Your task to perform on an android device: check data usage Image 0: 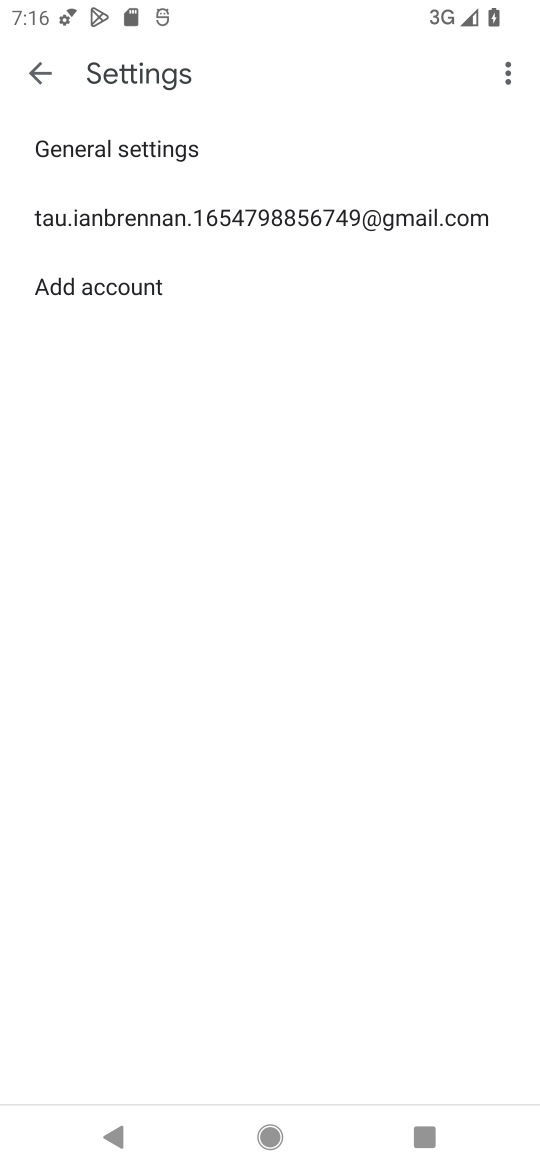
Step 0: press home button
Your task to perform on an android device: check data usage Image 1: 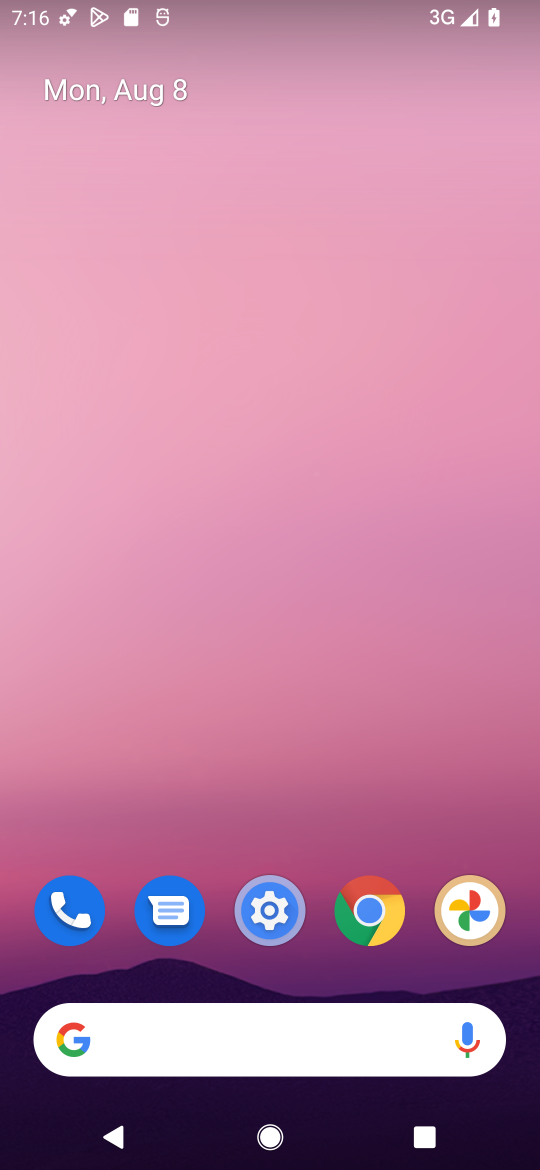
Step 1: click (277, 910)
Your task to perform on an android device: check data usage Image 2: 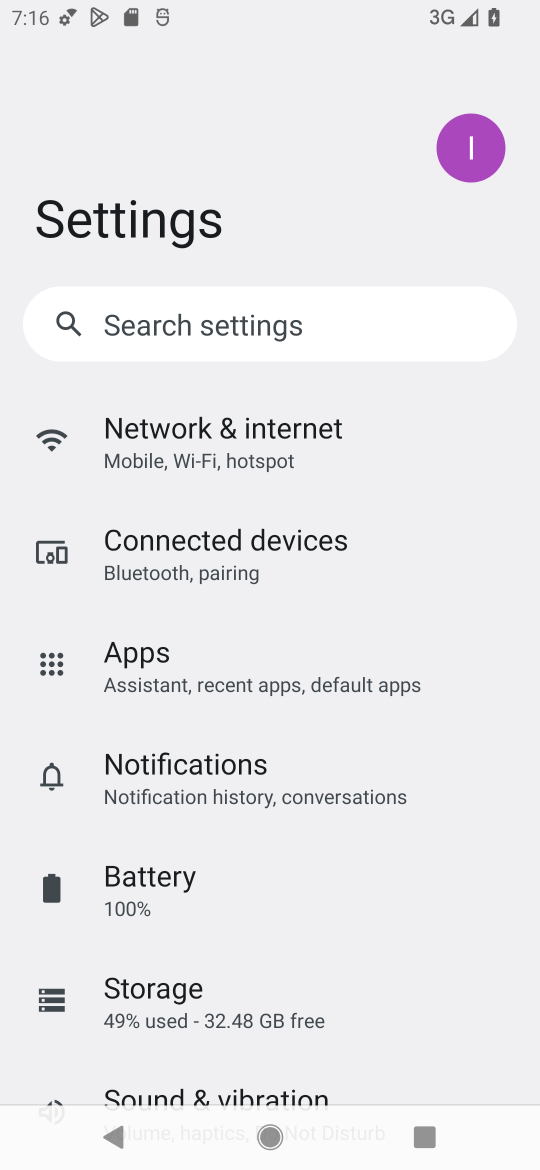
Step 2: click (167, 433)
Your task to perform on an android device: check data usage Image 3: 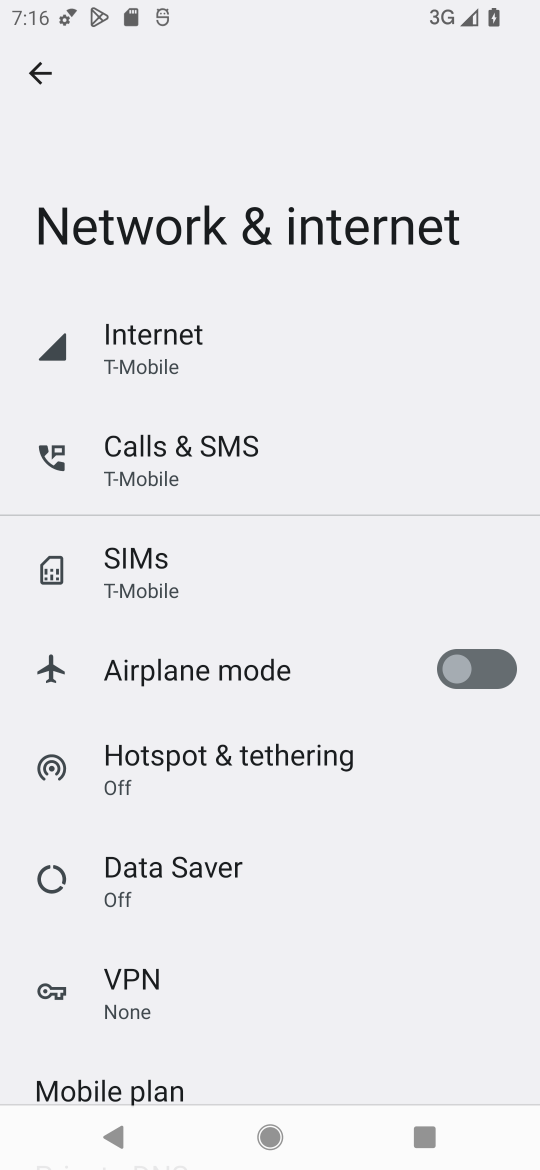
Step 3: click (143, 338)
Your task to perform on an android device: check data usage Image 4: 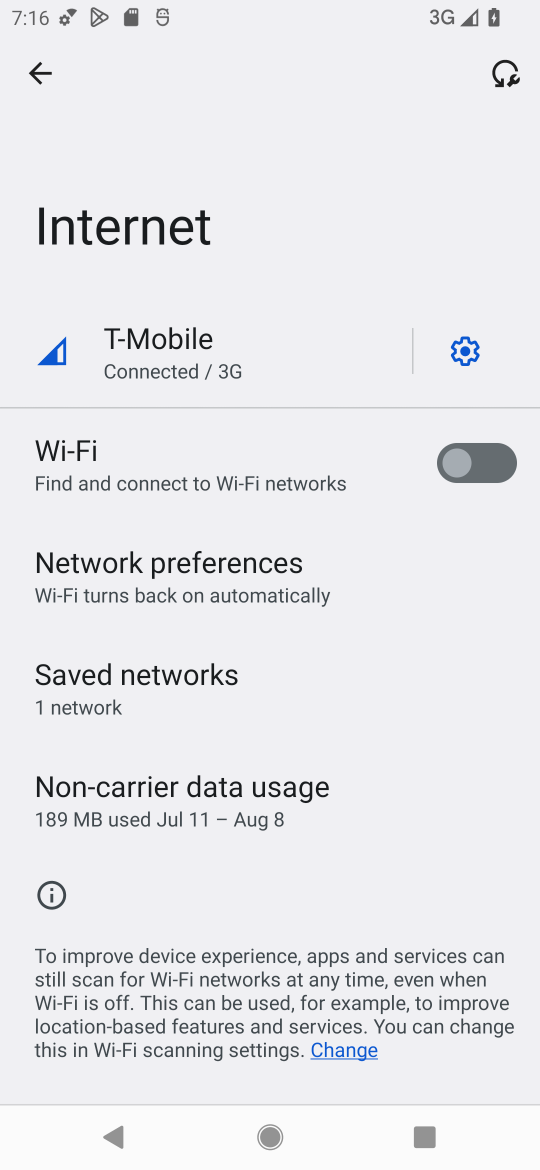
Step 4: click (187, 367)
Your task to perform on an android device: check data usage Image 5: 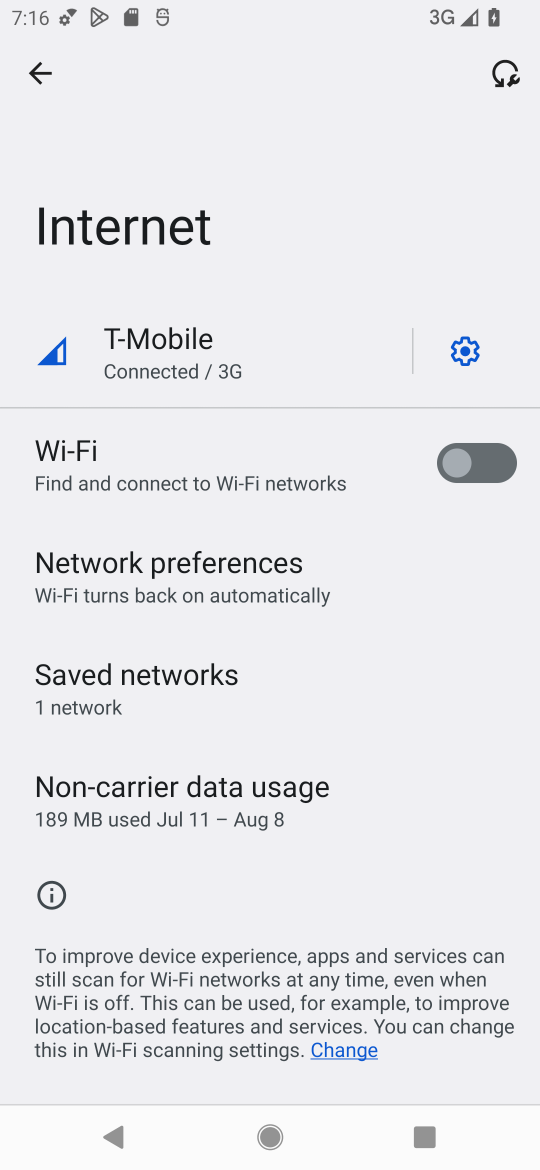
Step 5: click (187, 348)
Your task to perform on an android device: check data usage Image 6: 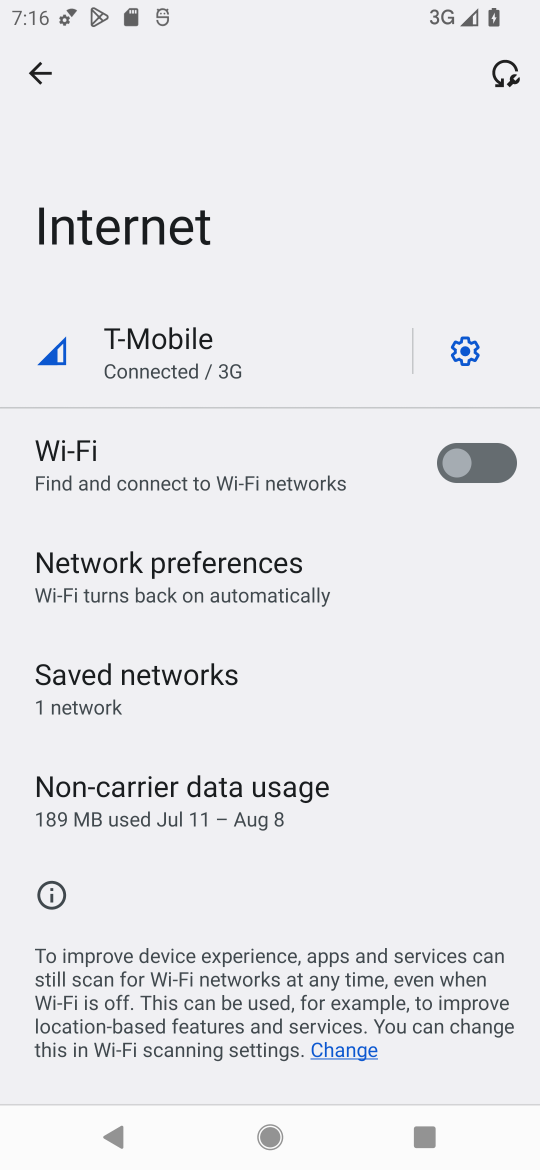
Step 6: click (187, 348)
Your task to perform on an android device: check data usage Image 7: 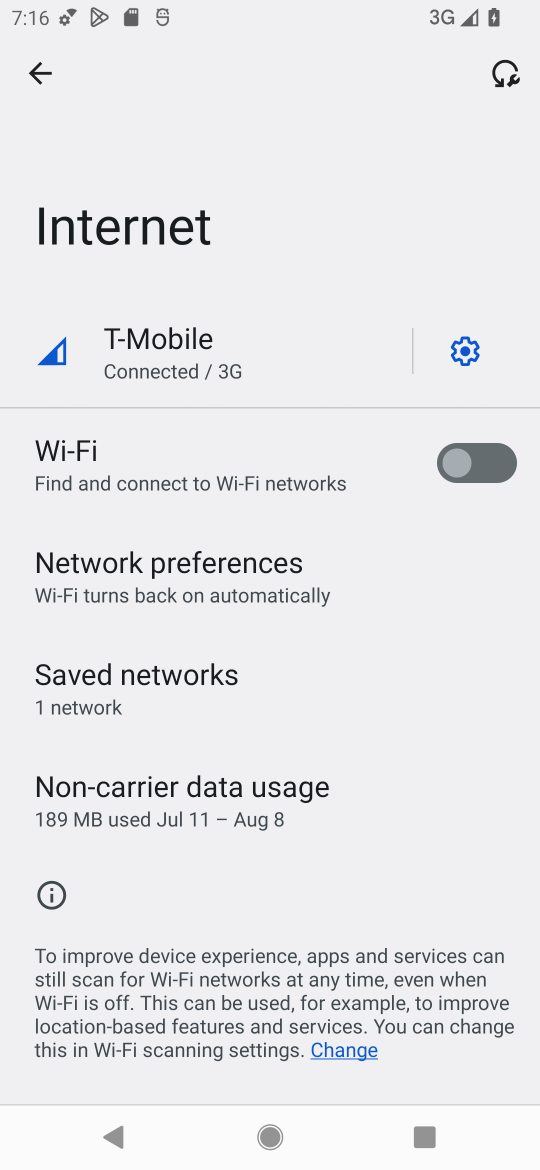
Step 7: click (461, 347)
Your task to perform on an android device: check data usage Image 8: 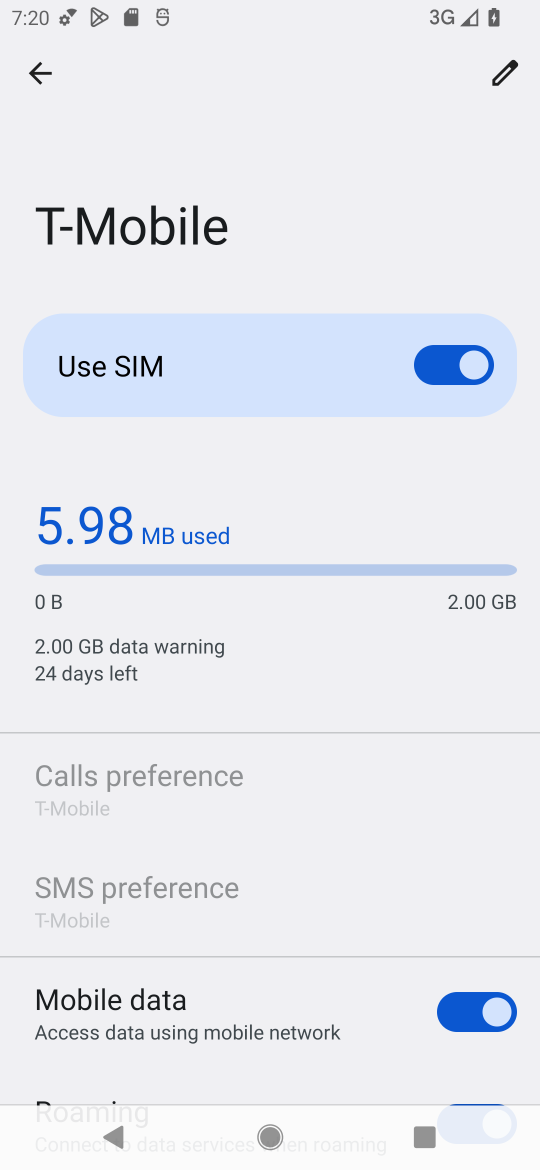
Step 8: task complete